Your task to perform on an android device: Open accessibility settings Image 0: 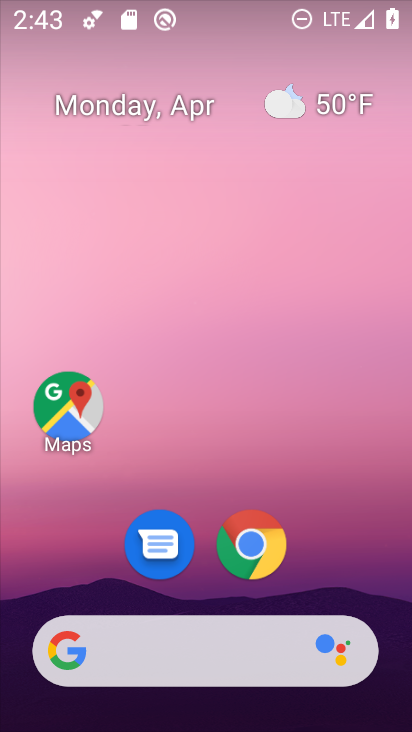
Step 0: drag from (331, 521) to (180, 48)
Your task to perform on an android device: Open accessibility settings Image 1: 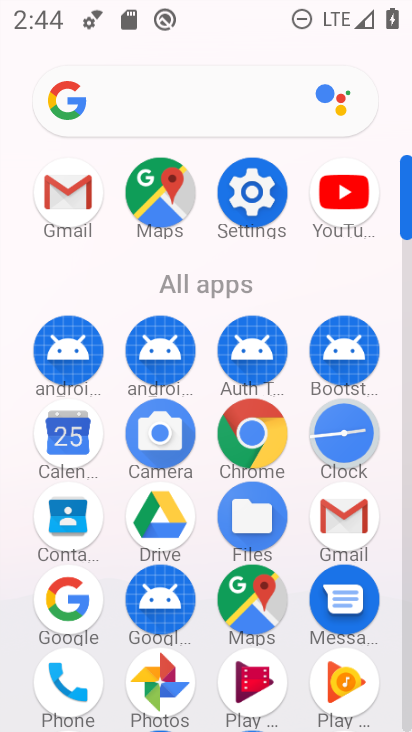
Step 1: click (256, 192)
Your task to perform on an android device: Open accessibility settings Image 2: 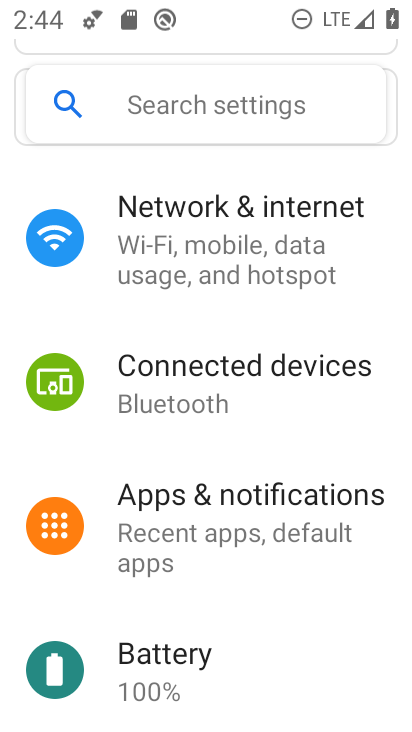
Step 2: drag from (295, 625) to (212, 163)
Your task to perform on an android device: Open accessibility settings Image 3: 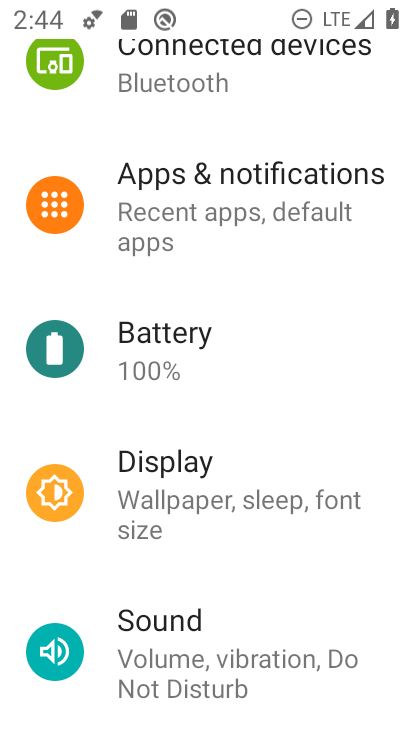
Step 3: drag from (303, 632) to (242, 225)
Your task to perform on an android device: Open accessibility settings Image 4: 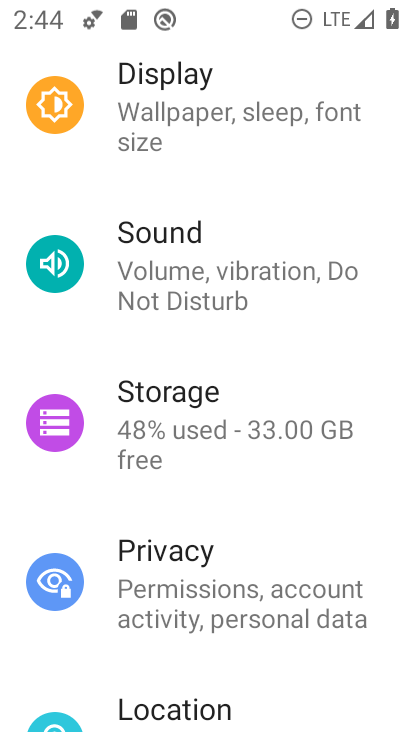
Step 4: drag from (255, 542) to (208, 100)
Your task to perform on an android device: Open accessibility settings Image 5: 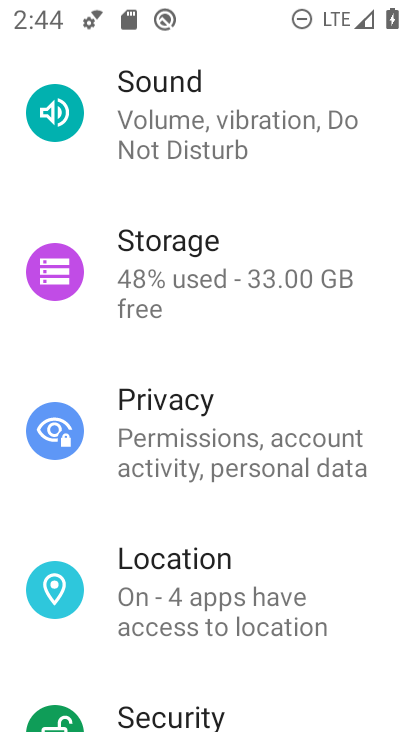
Step 5: drag from (261, 677) to (207, 138)
Your task to perform on an android device: Open accessibility settings Image 6: 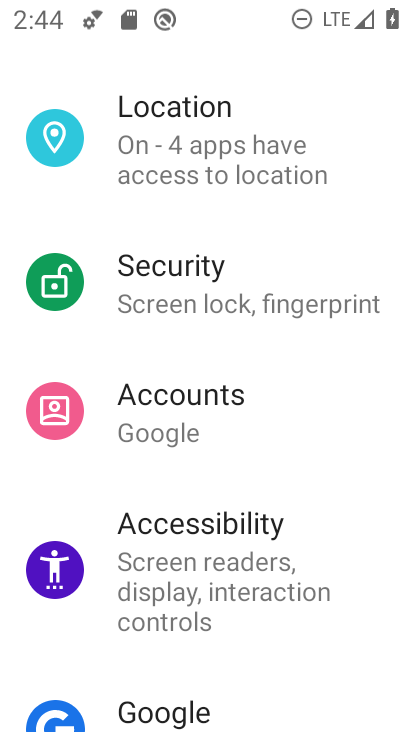
Step 6: click (196, 523)
Your task to perform on an android device: Open accessibility settings Image 7: 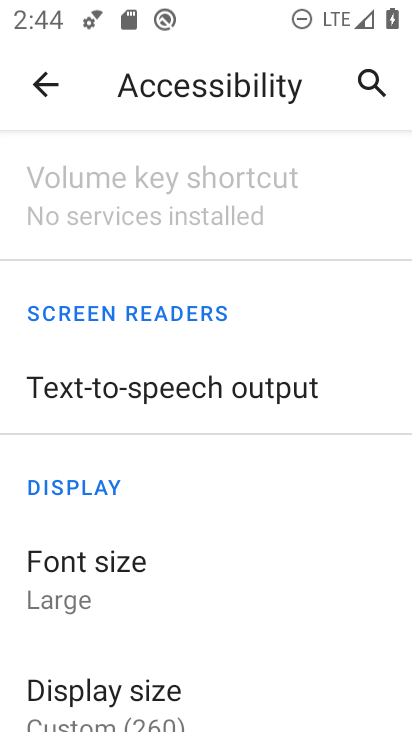
Step 7: task complete